Your task to perform on an android device: Turn off the flashlight Image 0: 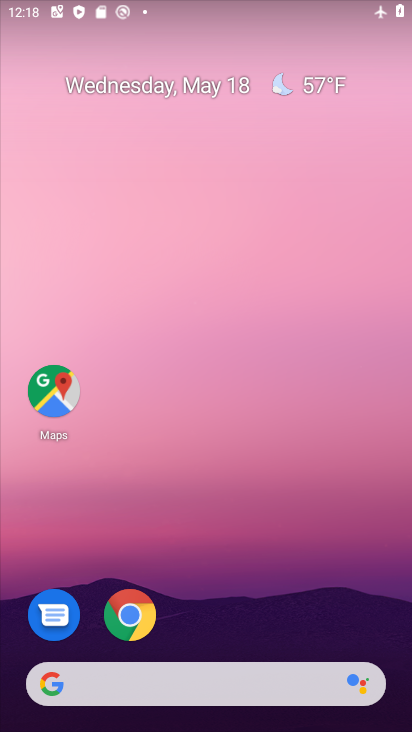
Step 0: drag from (379, 609) to (314, 109)
Your task to perform on an android device: Turn off the flashlight Image 1: 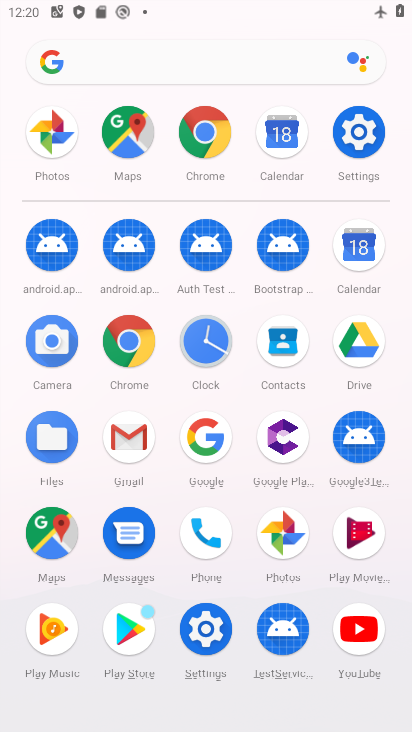
Step 1: click (198, 624)
Your task to perform on an android device: Turn off the flashlight Image 2: 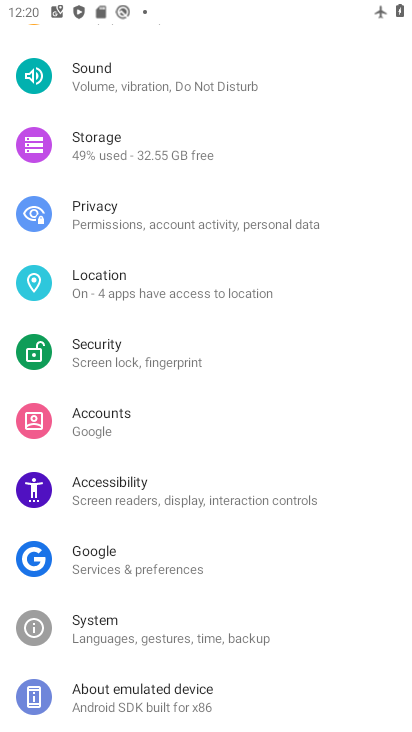
Step 2: task complete